Your task to perform on an android device: Check the weather Image 0: 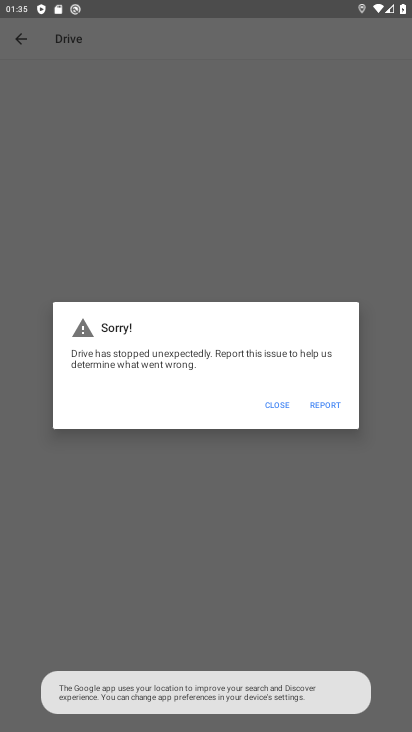
Step 0: click (138, 650)
Your task to perform on an android device: Check the weather Image 1: 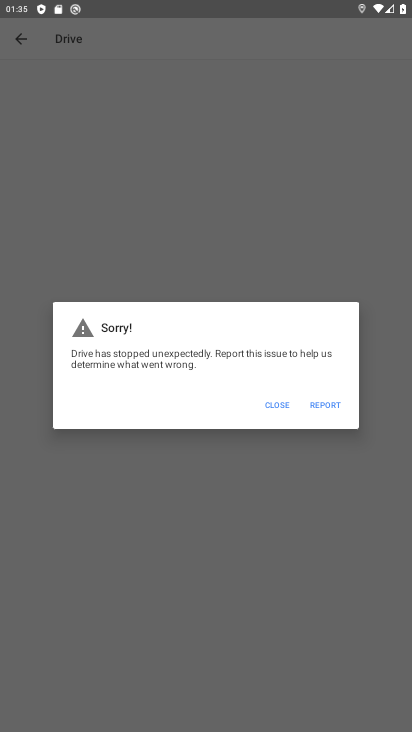
Step 1: press home button
Your task to perform on an android device: Check the weather Image 2: 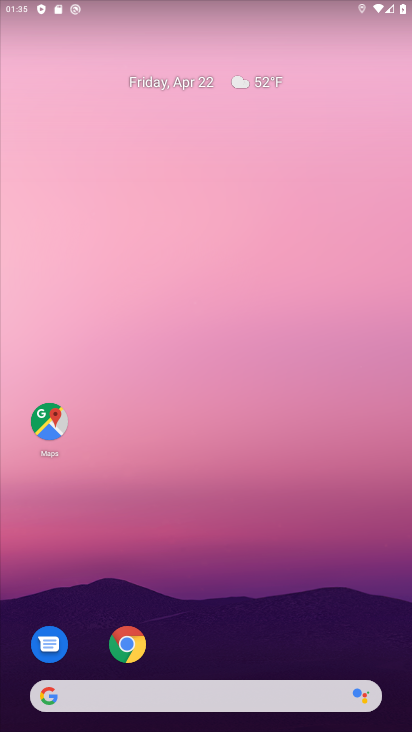
Step 2: drag from (321, 601) to (278, 204)
Your task to perform on an android device: Check the weather Image 3: 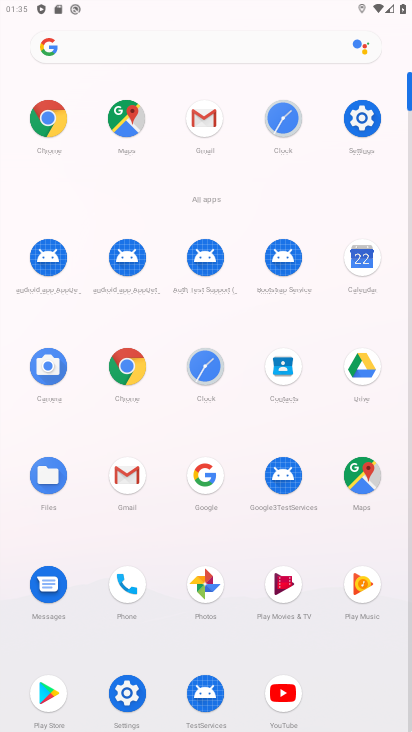
Step 3: click (49, 121)
Your task to perform on an android device: Check the weather Image 4: 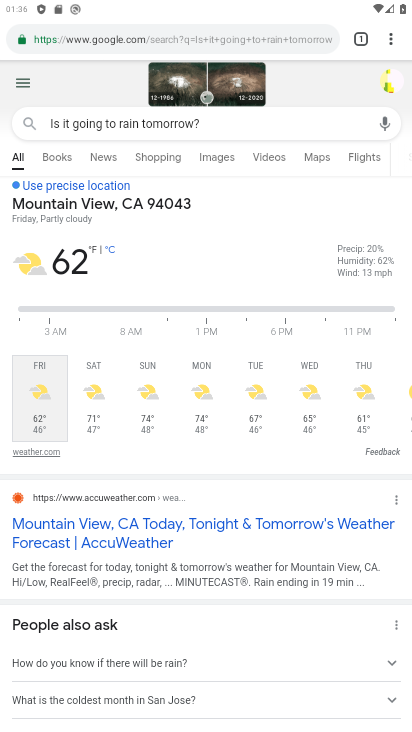
Step 4: click (231, 127)
Your task to perform on an android device: Check the weather Image 5: 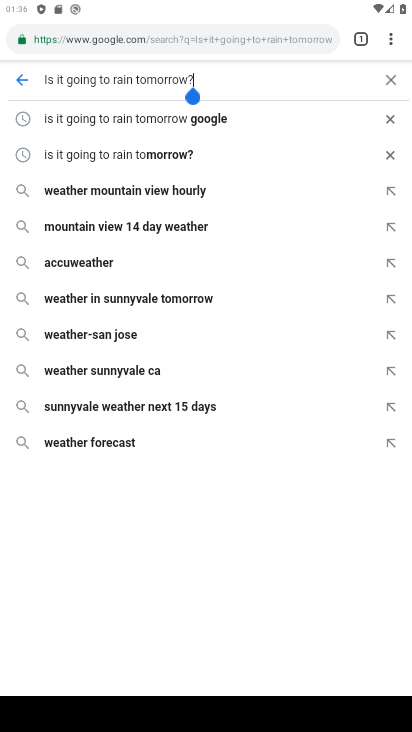
Step 5: click (392, 82)
Your task to perform on an android device: Check the weather Image 6: 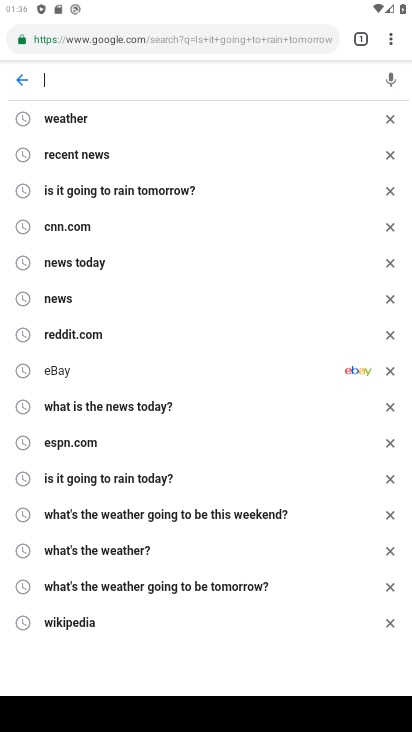
Step 6: click (141, 119)
Your task to perform on an android device: Check the weather Image 7: 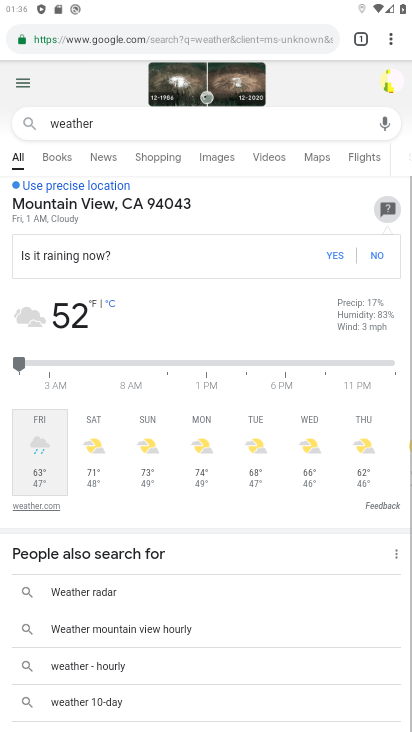
Step 7: task complete